Your task to perform on an android device: Open the stopwatch Image 0: 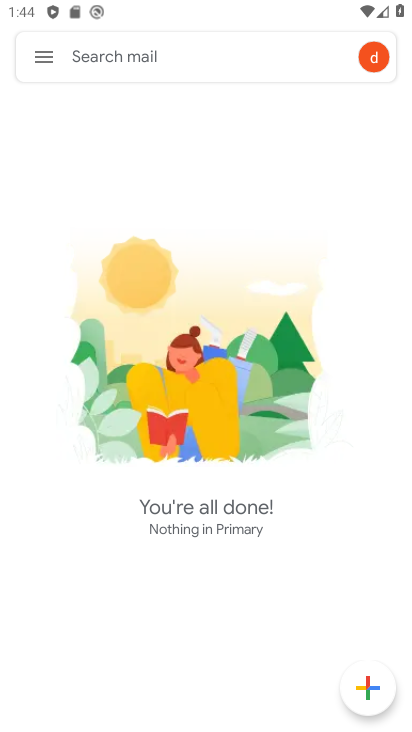
Step 0: press home button
Your task to perform on an android device: Open the stopwatch Image 1: 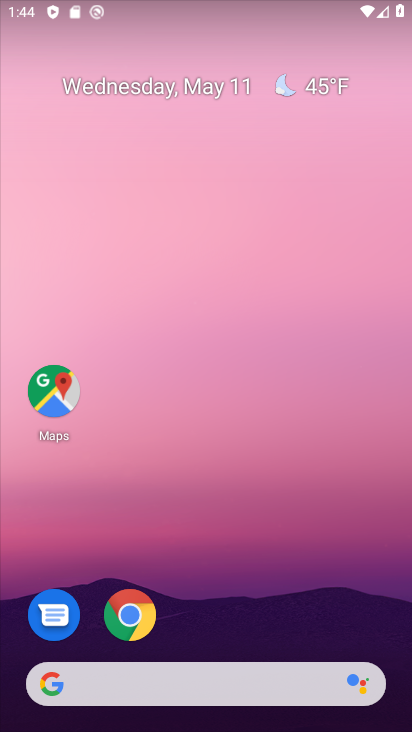
Step 1: drag from (226, 665) to (199, 130)
Your task to perform on an android device: Open the stopwatch Image 2: 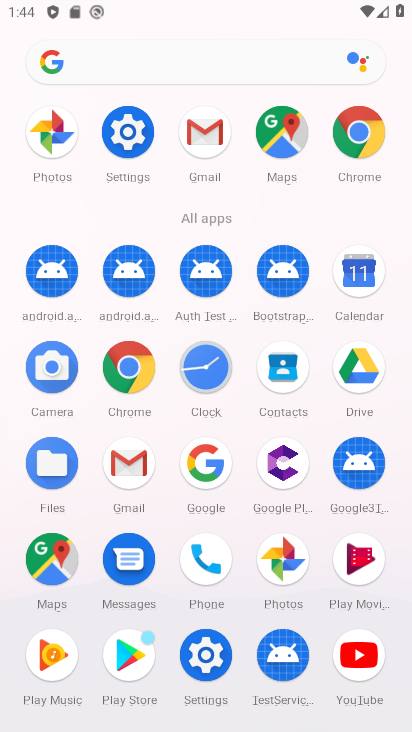
Step 2: click (204, 381)
Your task to perform on an android device: Open the stopwatch Image 3: 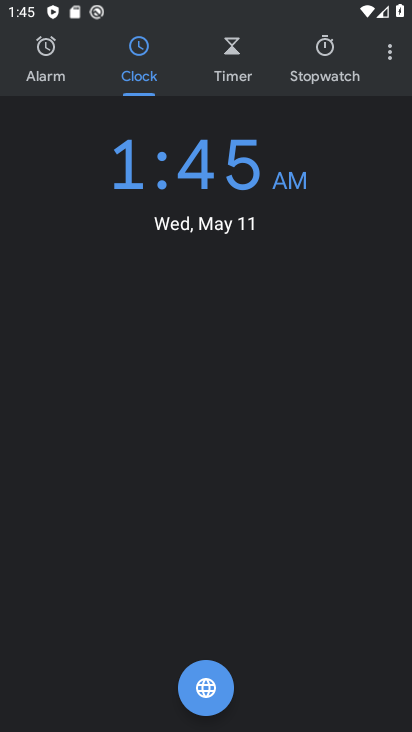
Step 3: click (316, 50)
Your task to perform on an android device: Open the stopwatch Image 4: 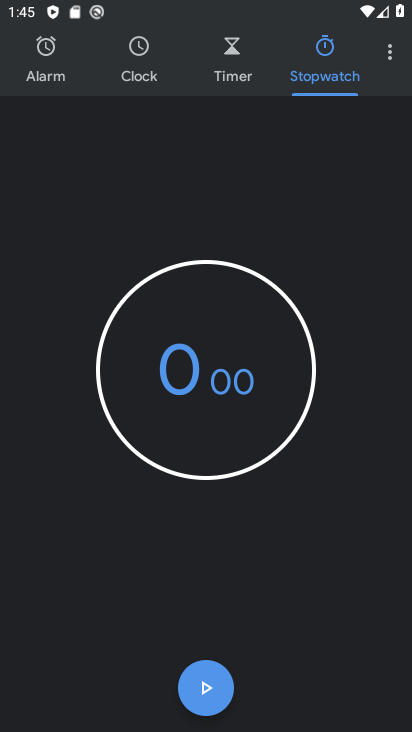
Step 4: click (234, 448)
Your task to perform on an android device: Open the stopwatch Image 5: 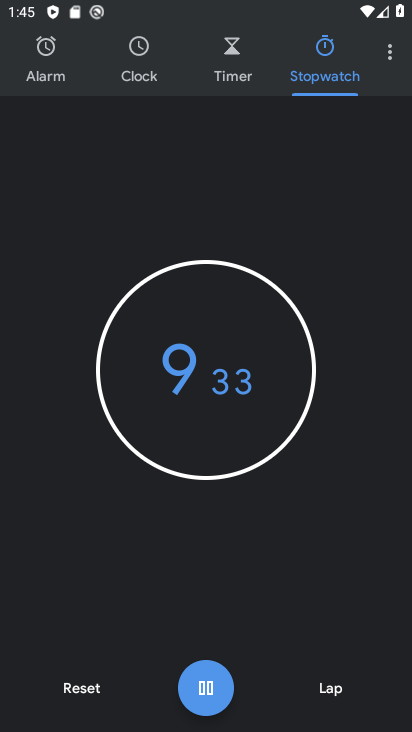
Step 5: task complete